Your task to perform on an android device: see tabs open on other devices in the chrome app Image 0: 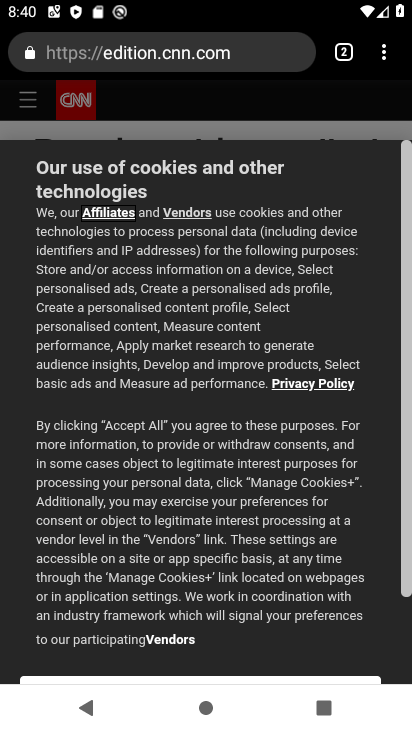
Step 0: click (394, 57)
Your task to perform on an android device: see tabs open on other devices in the chrome app Image 1: 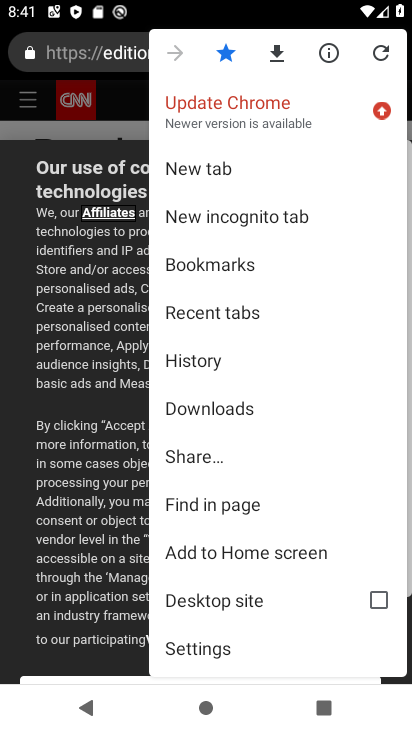
Step 1: click (217, 318)
Your task to perform on an android device: see tabs open on other devices in the chrome app Image 2: 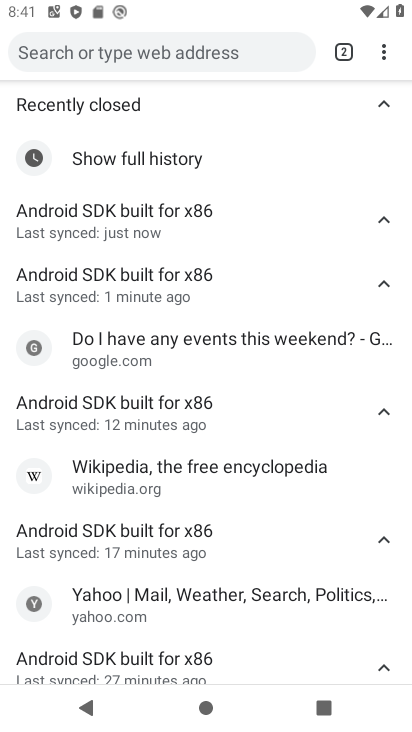
Step 2: task complete